Your task to perform on an android device: turn notification dots off Image 0: 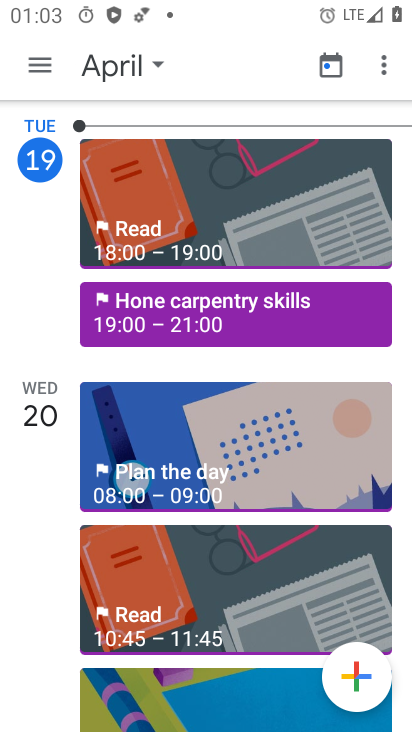
Step 0: press home button
Your task to perform on an android device: turn notification dots off Image 1: 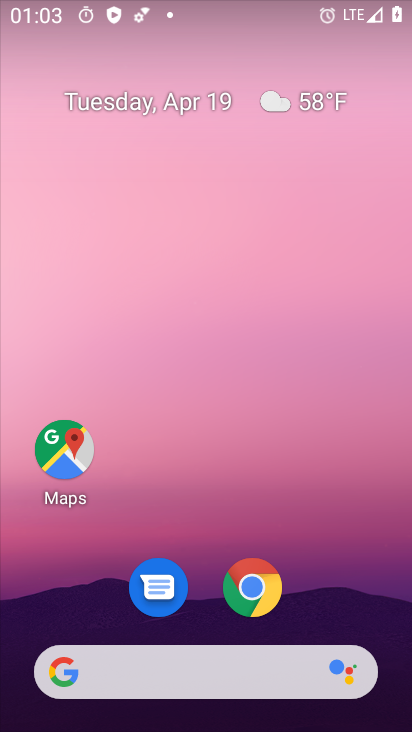
Step 1: drag from (387, 601) to (300, 149)
Your task to perform on an android device: turn notification dots off Image 2: 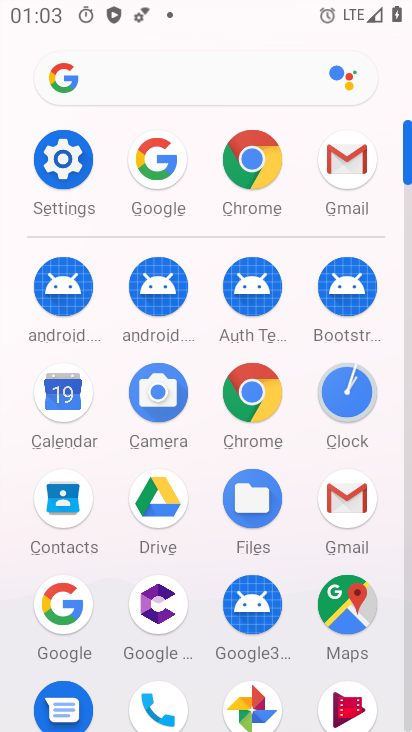
Step 2: click (71, 178)
Your task to perform on an android device: turn notification dots off Image 3: 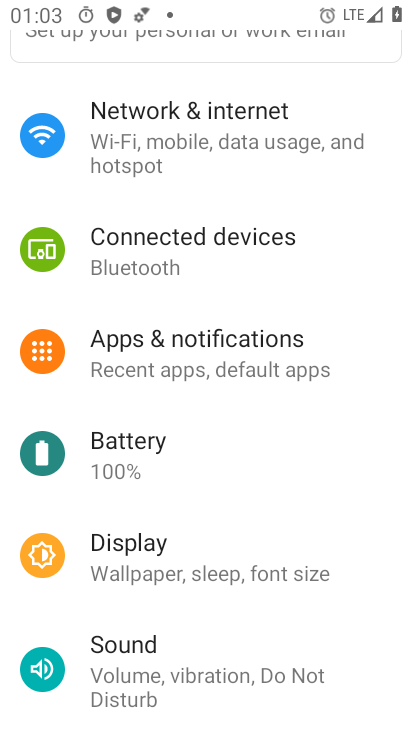
Step 3: drag from (327, 615) to (338, 284)
Your task to perform on an android device: turn notification dots off Image 4: 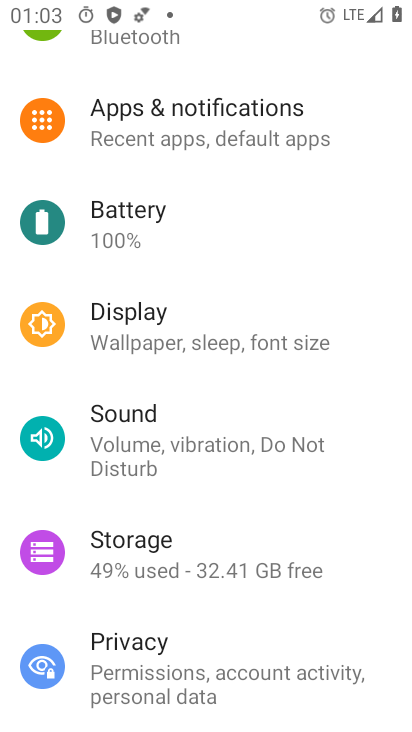
Step 4: drag from (346, 608) to (324, 299)
Your task to perform on an android device: turn notification dots off Image 5: 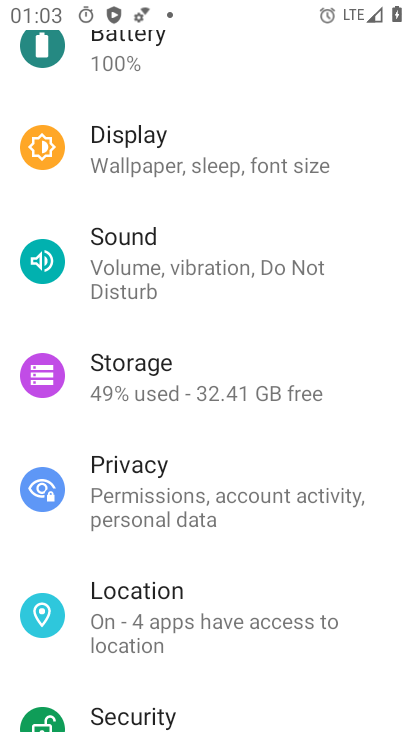
Step 5: drag from (343, 117) to (353, 657)
Your task to perform on an android device: turn notification dots off Image 6: 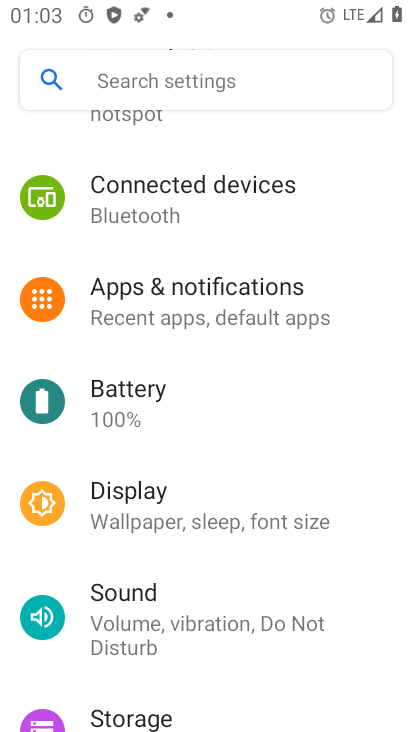
Step 6: click (280, 316)
Your task to perform on an android device: turn notification dots off Image 7: 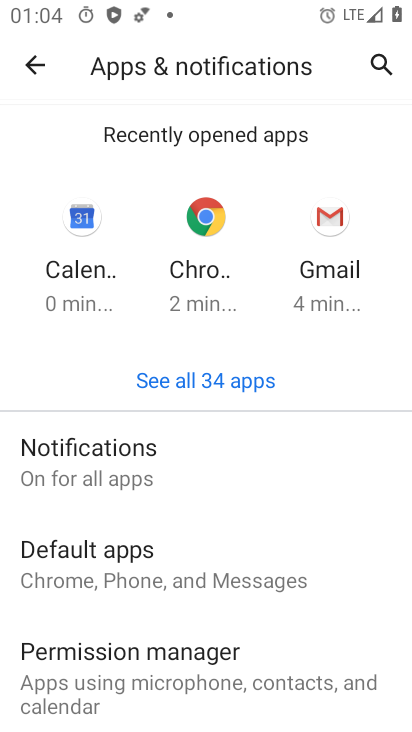
Step 7: click (46, 453)
Your task to perform on an android device: turn notification dots off Image 8: 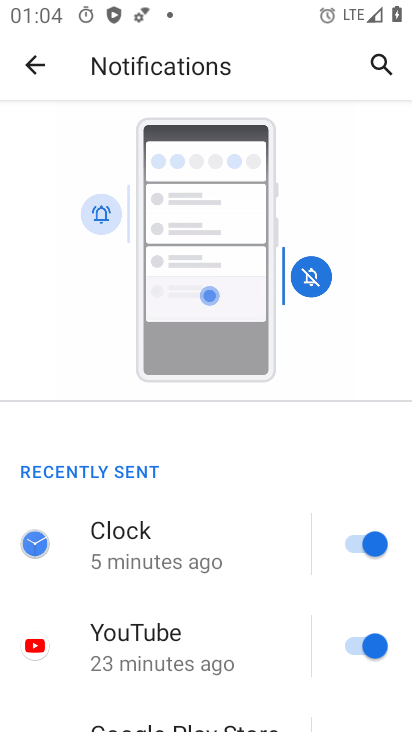
Step 8: drag from (270, 656) to (253, 263)
Your task to perform on an android device: turn notification dots off Image 9: 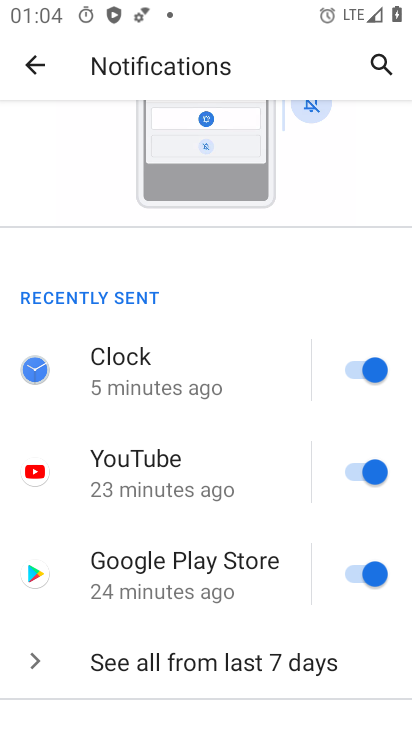
Step 9: drag from (292, 683) to (247, 280)
Your task to perform on an android device: turn notification dots off Image 10: 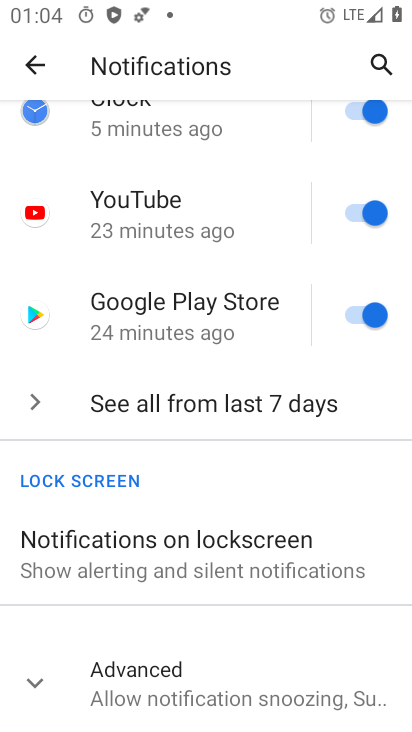
Step 10: click (270, 698)
Your task to perform on an android device: turn notification dots off Image 11: 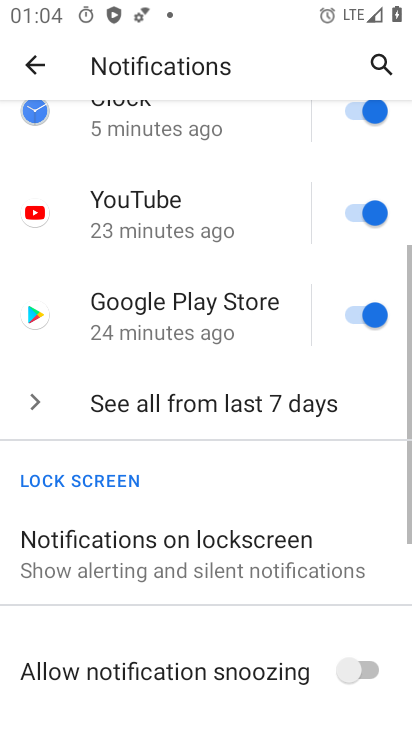
Step 11: drag from (291, 689) to (232, 253)
Your task to perform on an android device: turn notification dots off Image 12: 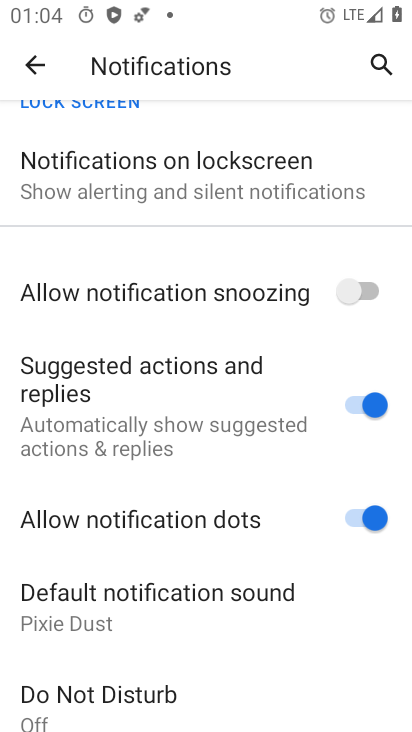
Step 12: click (350, 522)
Your task to perform on an android device: turn notification dots off Image 13: 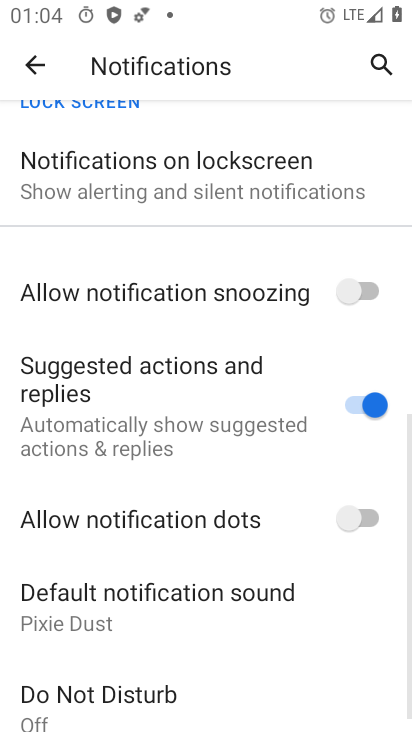
Step 13: task complete